Your task to perform on an android device: star an email in the gmail app Image 0: 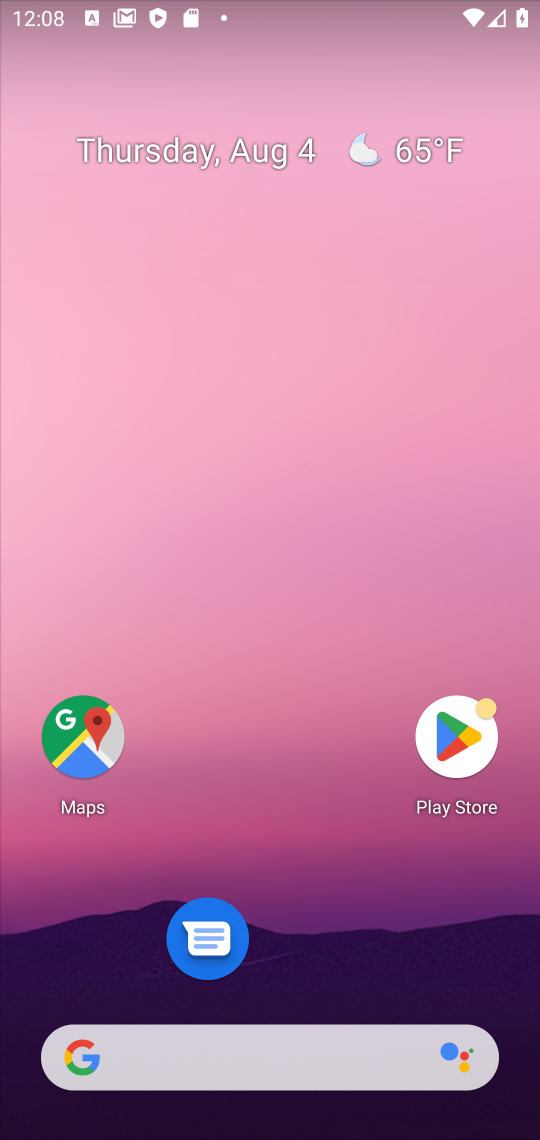
Step 0: drag from (207, 371) to (343, 11)
Your task to perform on an android device: star an email in the gmail app Image 1: 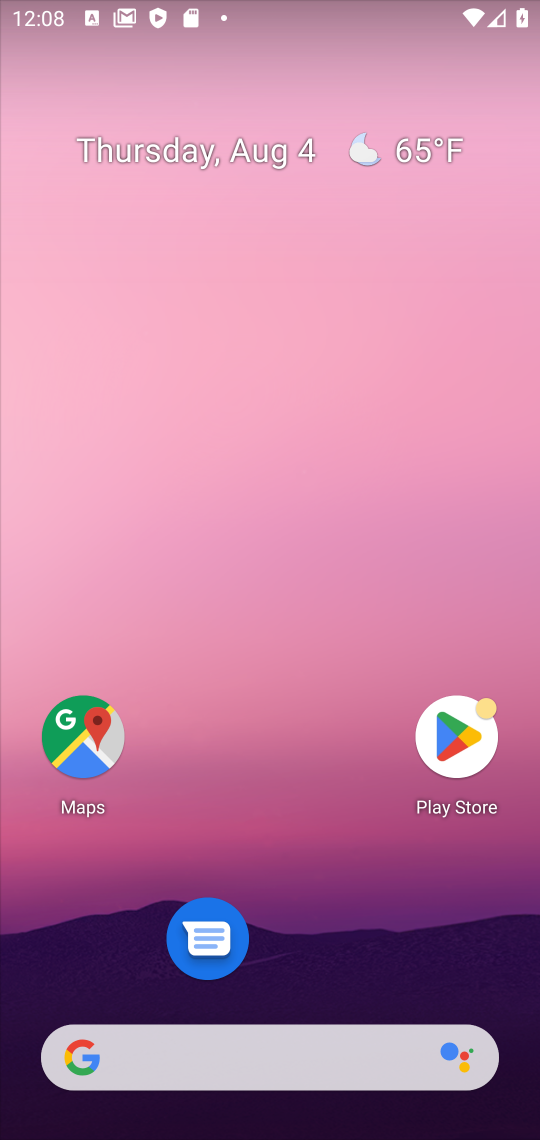
Step 1: drag from (302, 1062) to (516, 282)
Your task to perform on an android device: star an email in the gmail app Image 2: 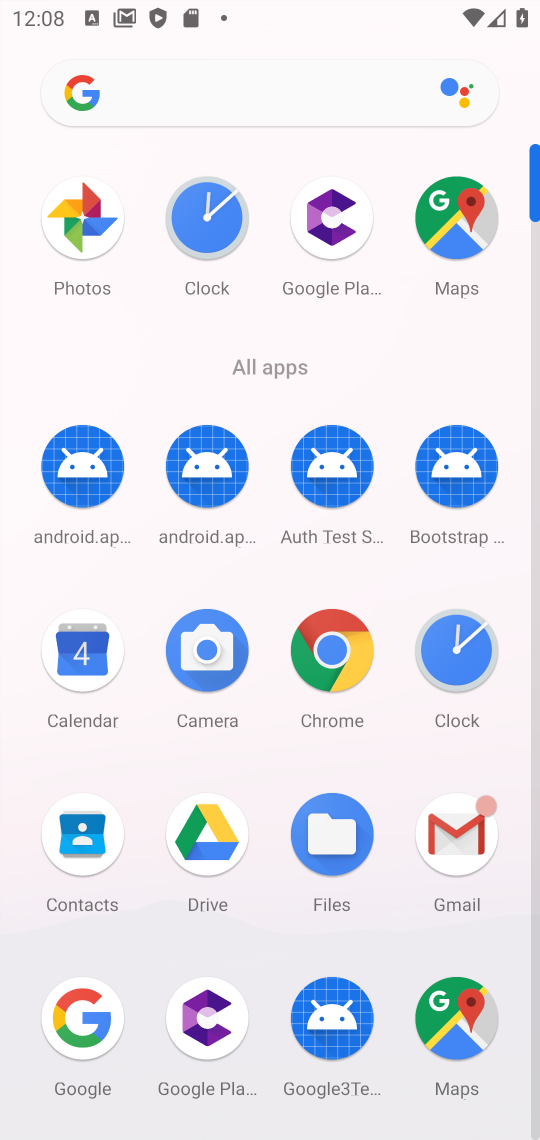
Step 2: click (466, 836)
Your task to perform on an android device: star an email in the gmail app Image 3: 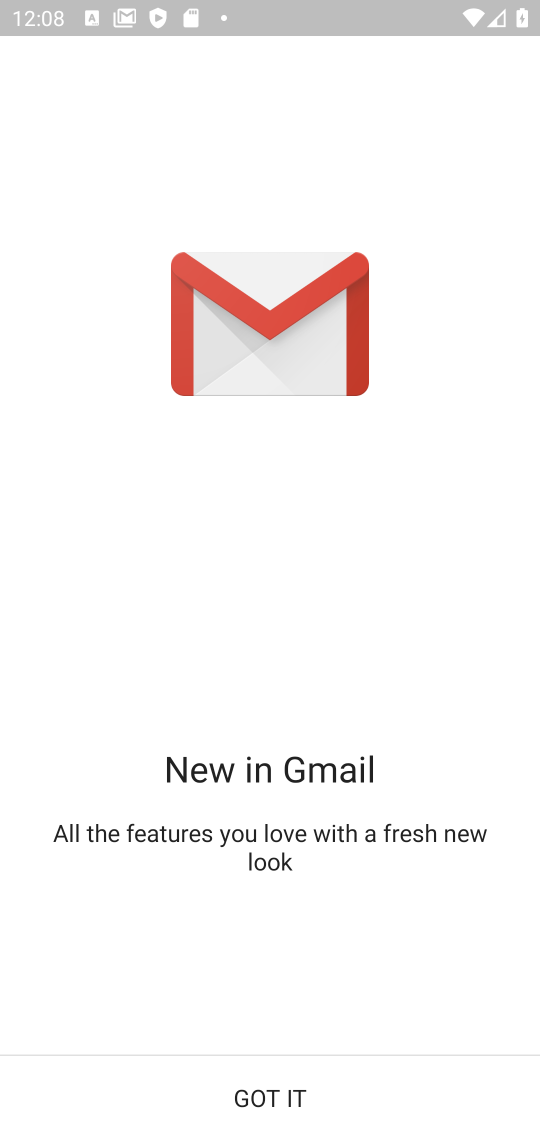
Step 3: click (216, 1112)
Your task to perform on an android device: star an email in the gmail app Image 4: 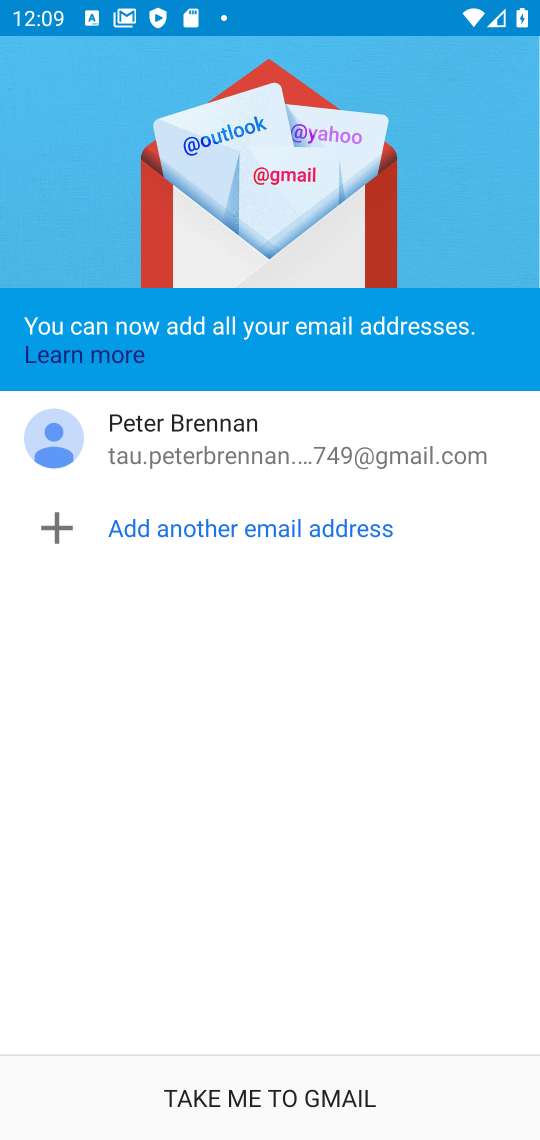
Step 4: click (302, 1103)
Your task to perform on an android device: star an email in the gmail app Image 5: 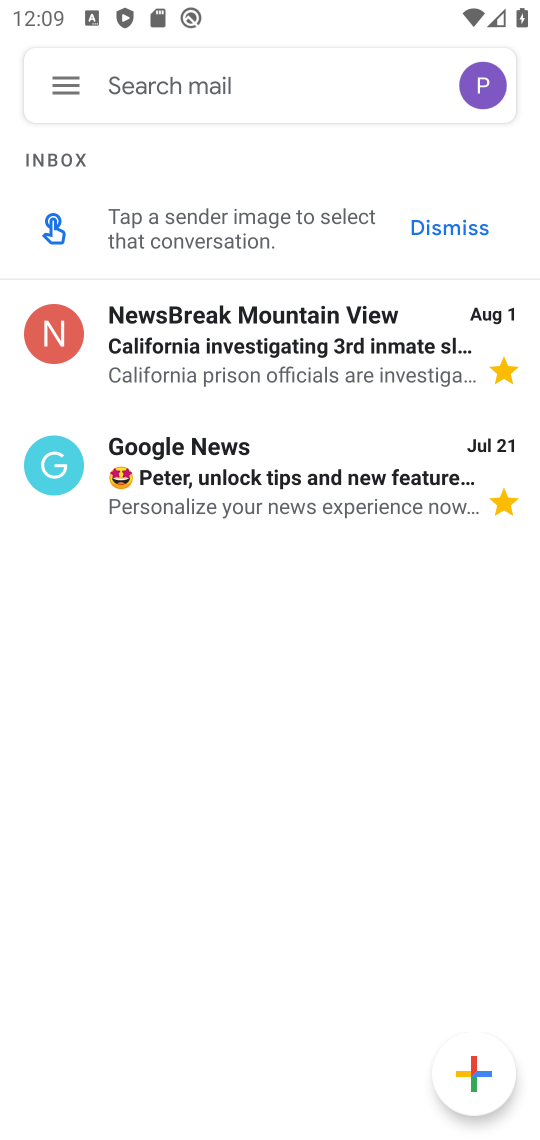
Step 5: task complete